Your task to perform on an android device: turn on improve location accuracy Image 0: 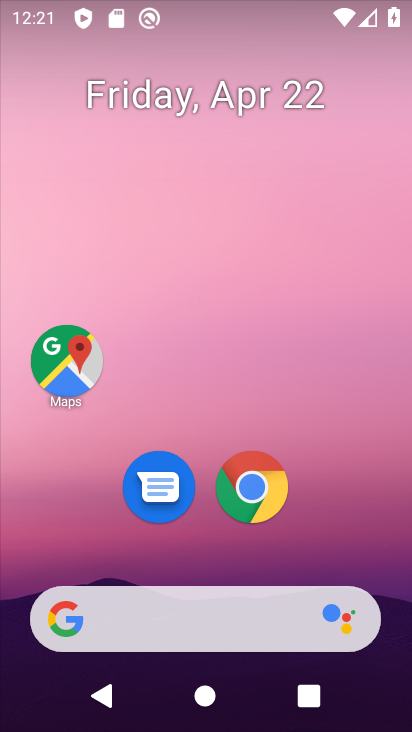
Step 0: drag from (318, 372) to (317, 40)
Your task to perform on an android device: turn on improve location accuracy Image 1: 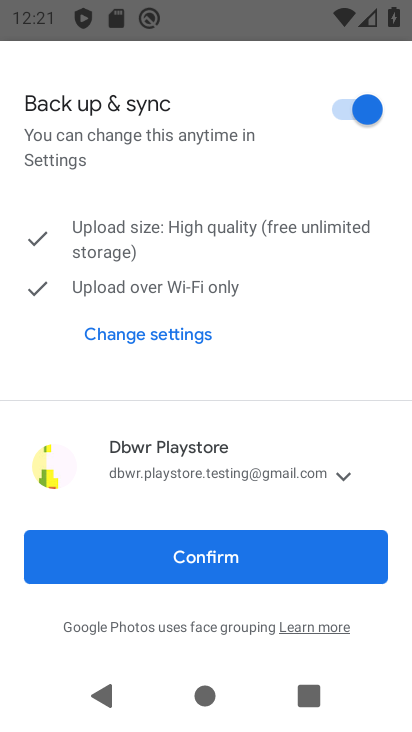
Step 1: press home button
Your task to perform on an android device: turn on improve location accuracy Image 2: 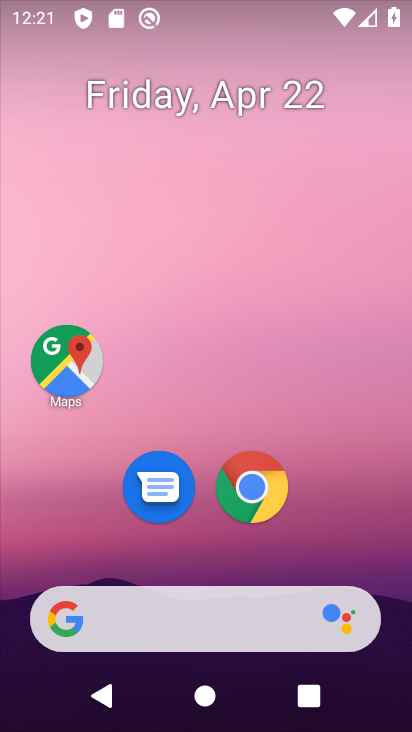
Step 2: drag from (331, 507) to (339, 62)
Your task to perform on an android device: turn on improve location accuracy Image 3: 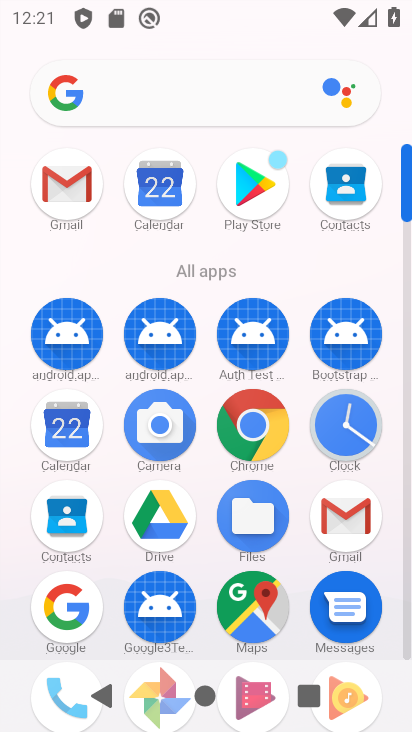
Step 3: drag from (386, 591) to (406, 531)
Your task to perform on an android device: turn on improve location accuracy Image 4: 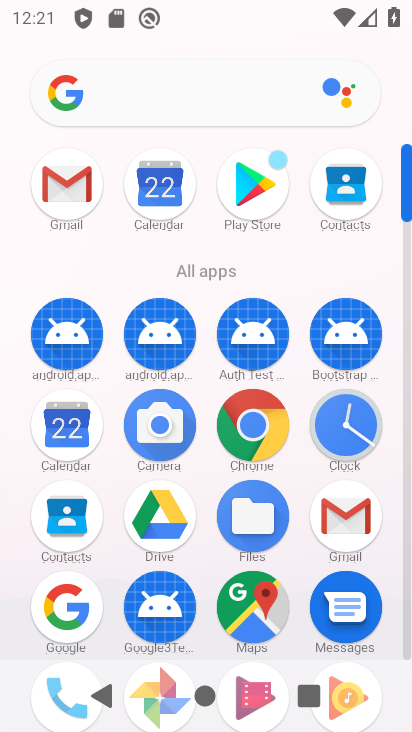
Step 4: drag from (399, 554) to (410, 397)
Your task to perform on an android device: turn on improve location accuracy Image 5: 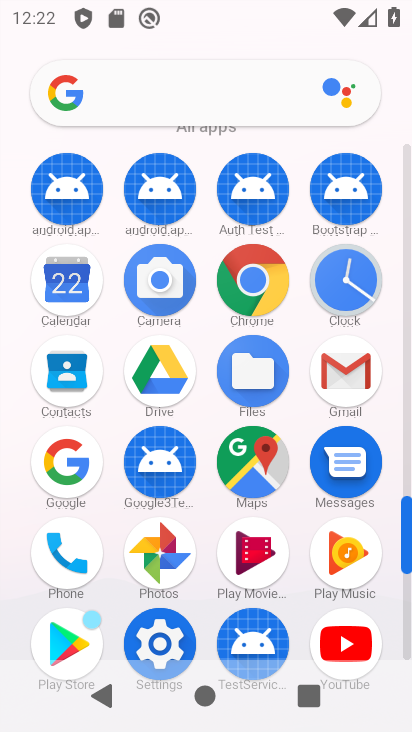
Step 5: drag from (403, 541) to (409, 259)
Your task to perform on an android device: turn on improve location accuracy Image 6: 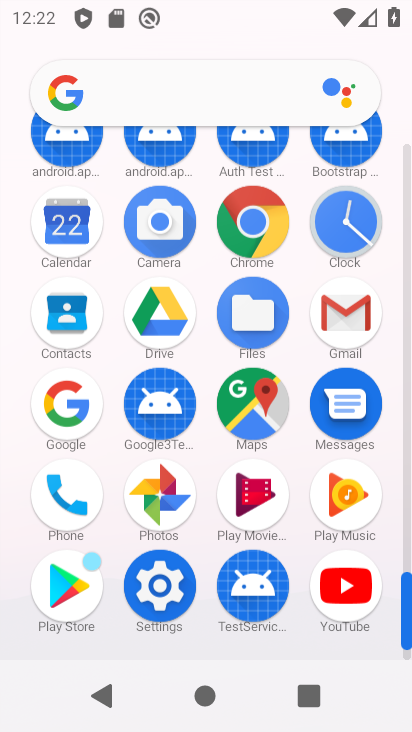
Step 6: click (144, 592)
Your task to perform on an android device: turn on improve location accuracy Image 7: 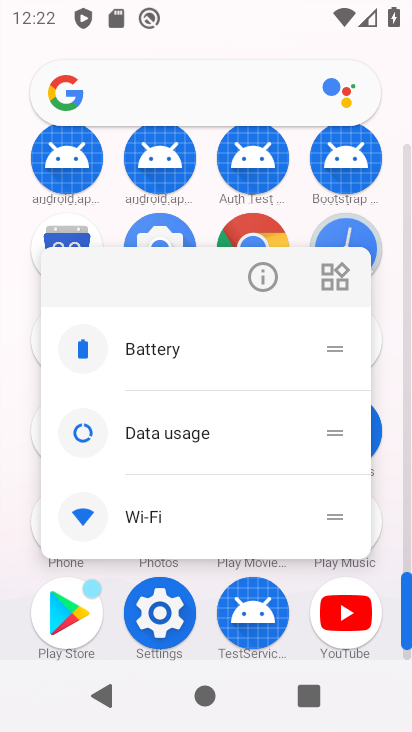
Step 7: click (173, 622)
Your task to perform on an android device: turn on improve location accuracy Image 8: 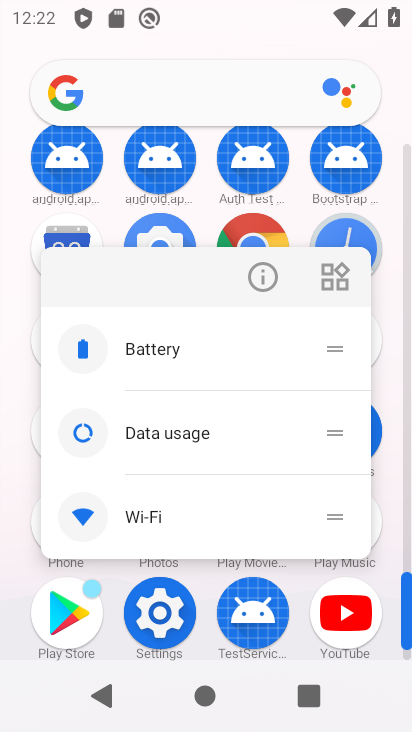
Step 8: click (156, 605)
Your task to perform on an android device: turn on improve location accuracy Image 9: 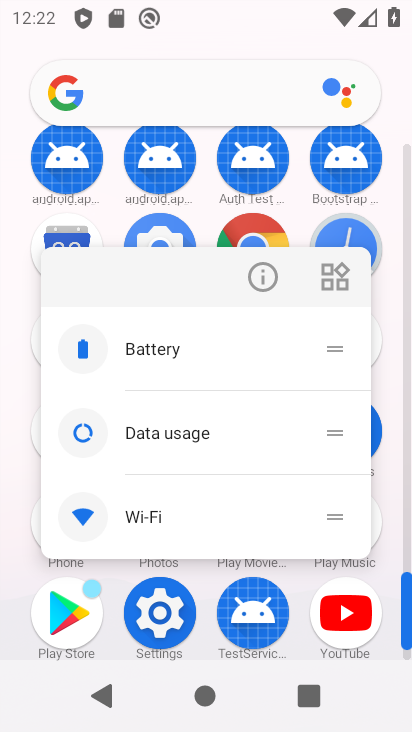
Step 9: click (156, 605)
Your task to perform on an android device: turn on improve location accuracy Image 10: 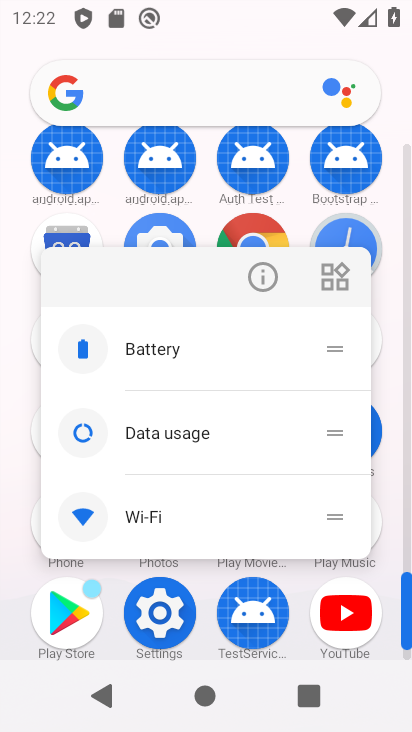
Step 10: click (161, 620)
Your task to perform on an android device: turn on improve location accuracy Image 11: 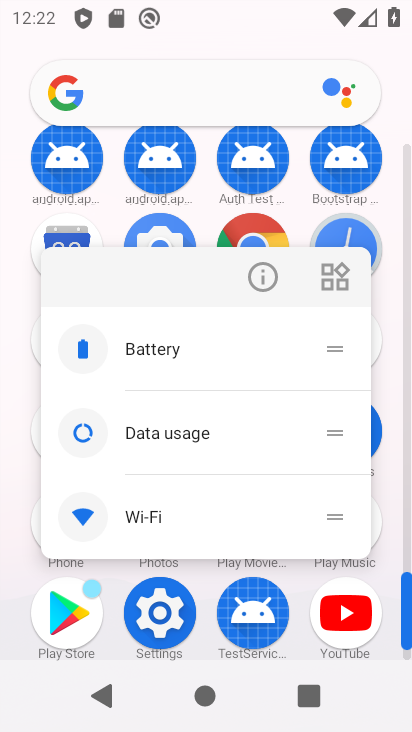
Step 11: click (161, 620)
Your task to perform on an android device: turn on improve location accuracy Image 12: 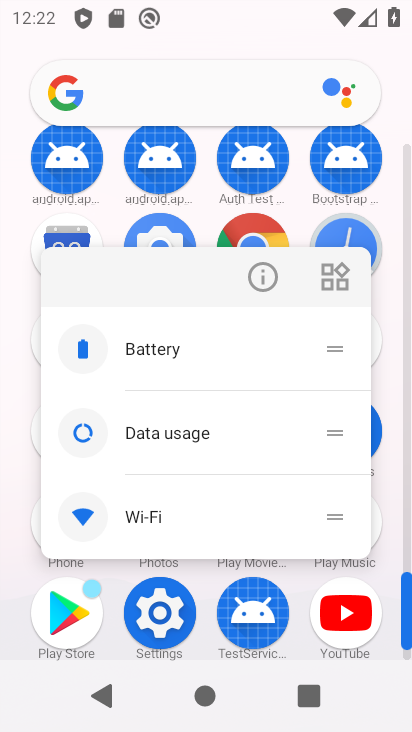
Step 12: click (158, 616)
Your task to perform on an android device: turn on improve location accuracy Image 13: 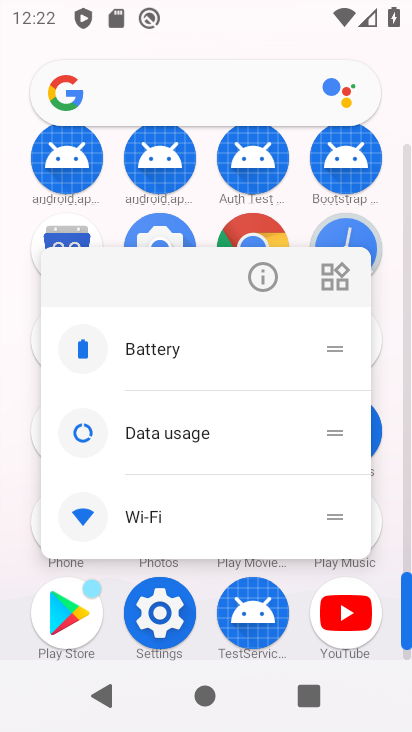
Step 13: click (158, 615)
Your task to perform on an android device: turn on improve location accuracy Image 14: 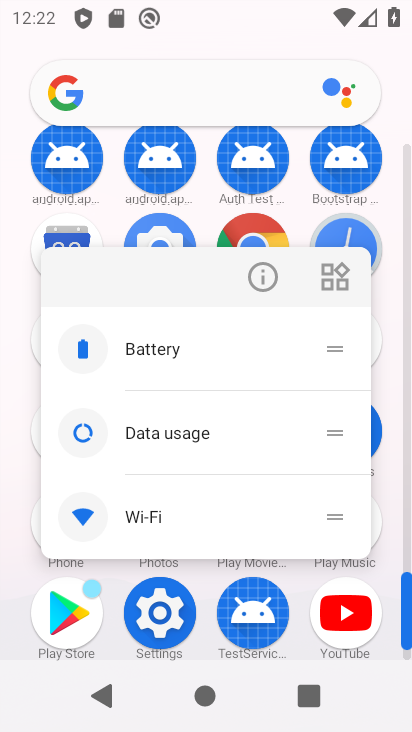
Step 14: click (158, 615)
Your task to perform on an android device: turn on improve location accuracy Image 15: 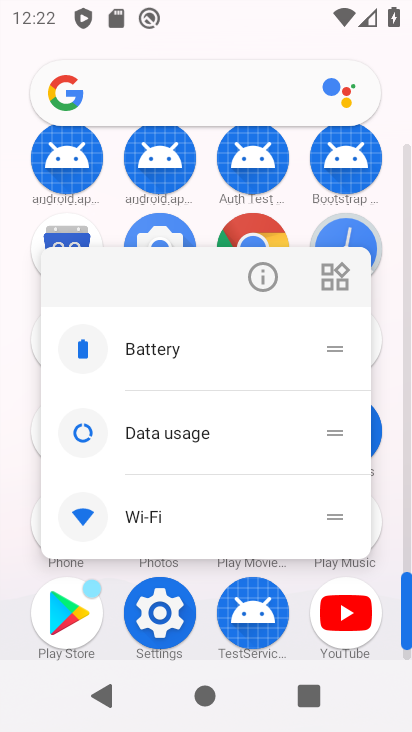
Step 15: click (158, 615)
Your task to perform on an android device: turn on improve location accuracy Image 16: 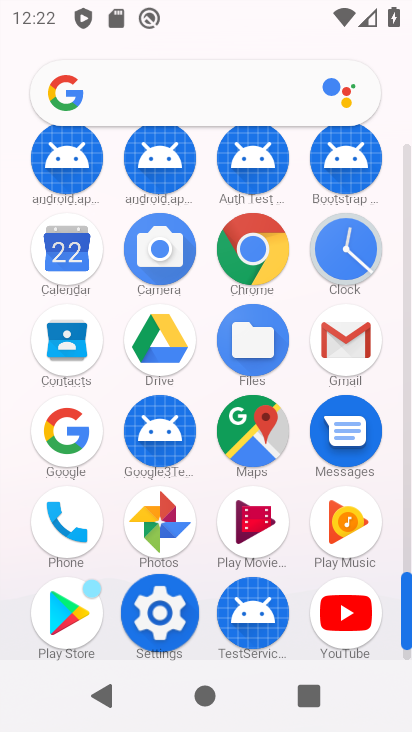
Step 16: click (158, 613)
Your task to perform on an android device: turn on improve location accuracy Image 17: 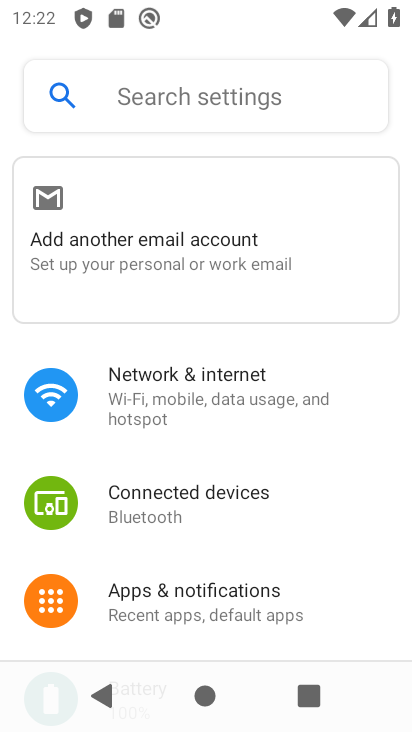
Step 17: drag from (212, 492) to (331, 170)
Your task to perform on an android device: turn on improve location accuracy Image 18: 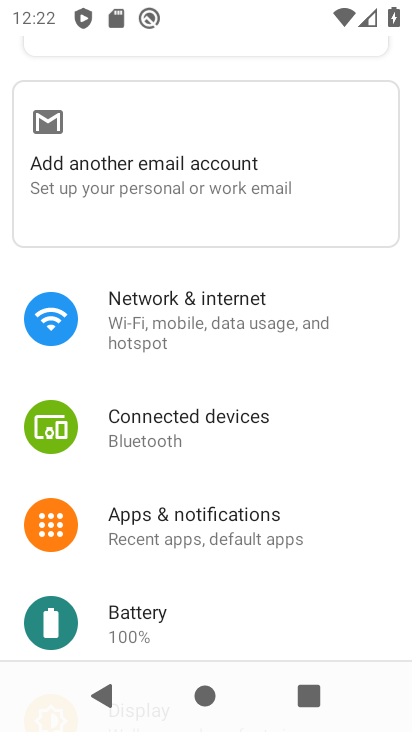
Step 18: drag from (289, 450) to (309, 250)
Your task to perform on an android device: turn on improve location accuracy Image 19: 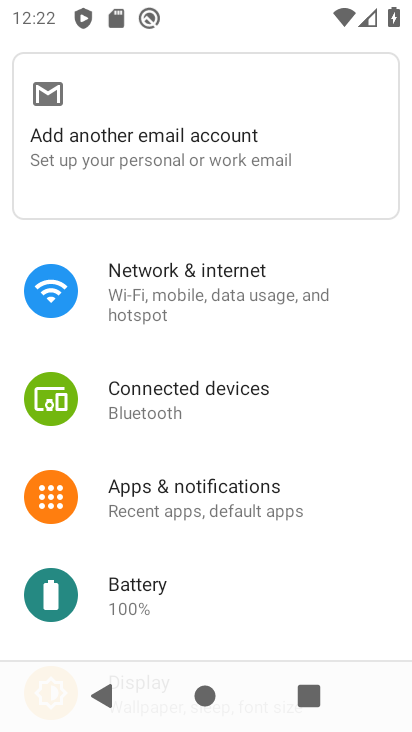
Step 19: drag from (300, 586) to (318, 323)
Your task to perform on an android device: turn on improve location accuracy Image 20: 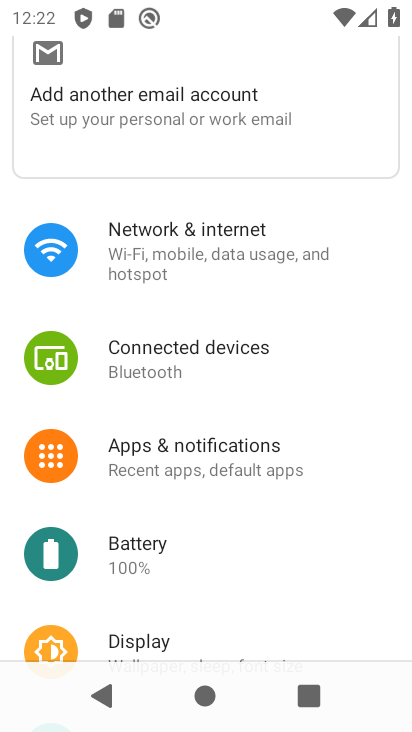
Step 20: drag from (224, 511) to (278, 179)
Your task to perform on an android device: turn on improve location accuracy Image 21: 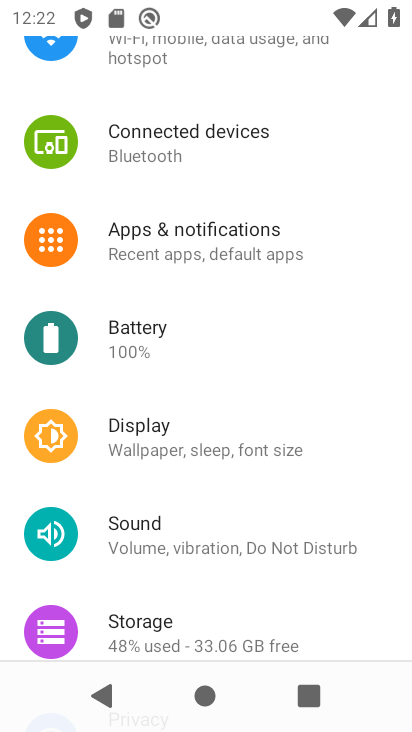
Step 21: drag from (165, 592) to (239, 122)
Your task to perform on an android device: turn on improve location accuracy Image 22: 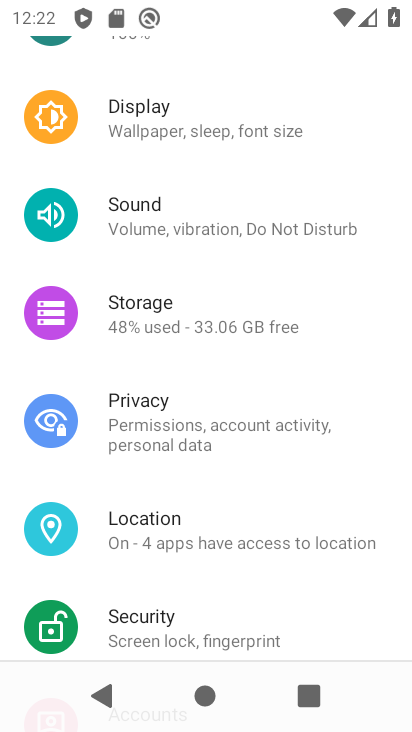
Step 22: drag from (265, 612) to (262, 199)
Your task to perform on an android device: turn on improve location accuracy Image 23: 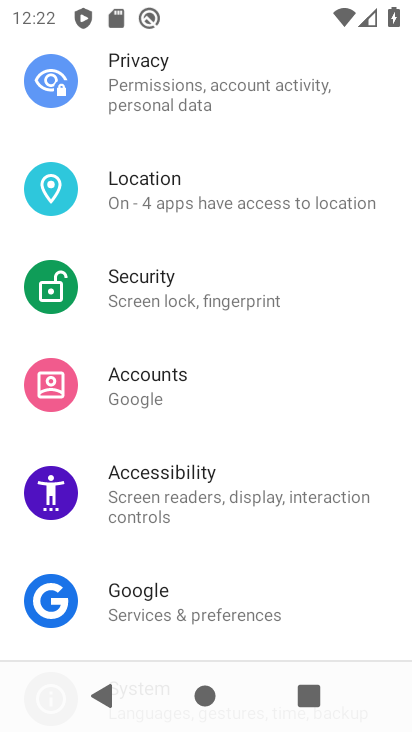
Step 23: click (195, 197)
Your task to perform on an android device: turn on improve location accuracy Image 24: 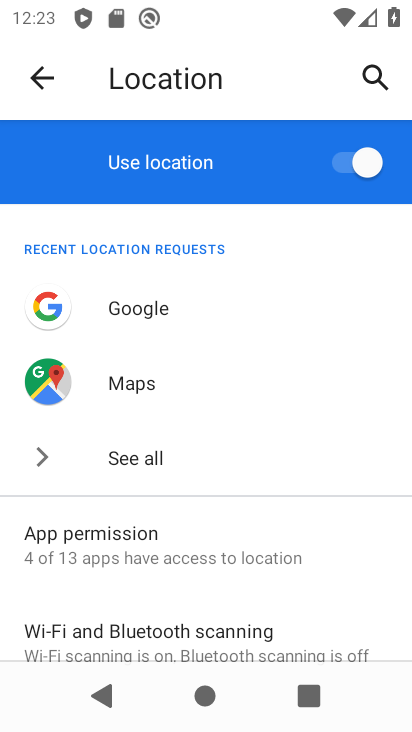
Step 24: drag from (218, 552) to (362, 166)
Your task to perform on an android device: turn on improve location accuracy Image 25: 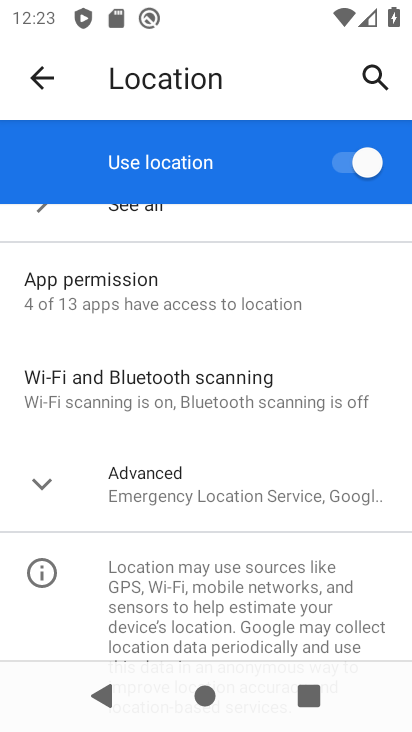
Step 25: drag from (252, 573) to (371, 124)
Your task to perform on an android device: turn on improve location accuracy Image 26: 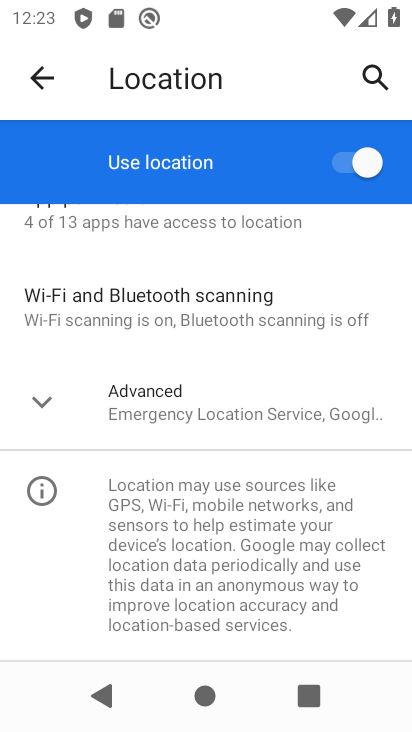
Step 26: click (246, 400)
Your task to perform on an android device: turn on improve location accuracy Image 27: 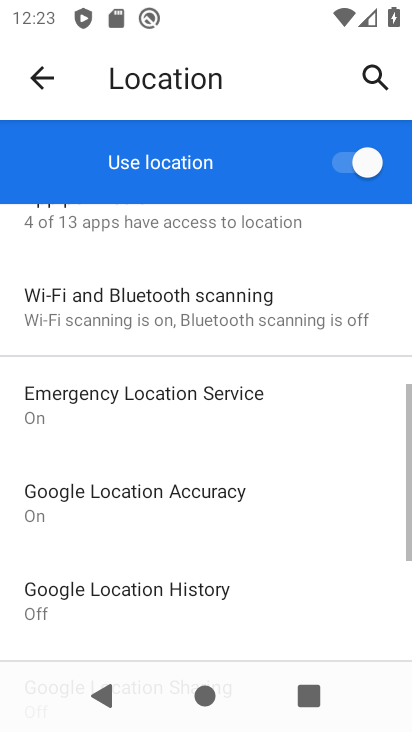
Step 27: drag from (288, 538) to (344, 250)
Your task to perform on an android device: turn on improve location accuracy Image 28: 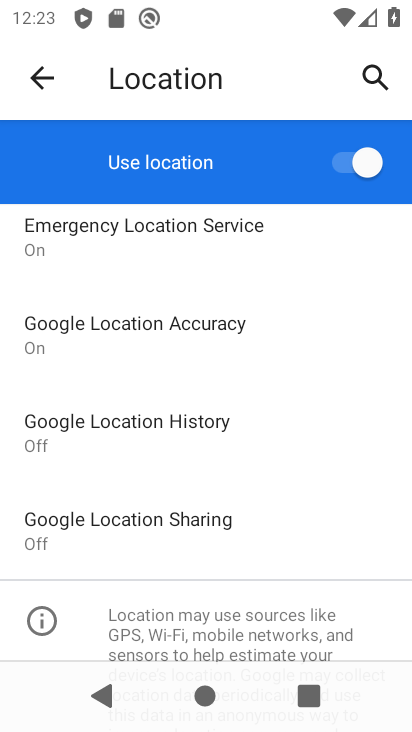
Step 28: click (209, 333)
Your task to perform on an android device: turn on improve location accuracy Image 29: 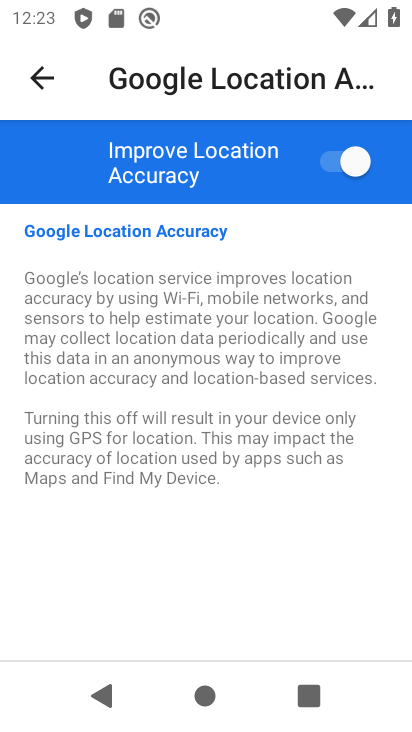
Step 29: task complete